Your task to perform on an android device: remove spam from my inbox in the gmail app Image 0: 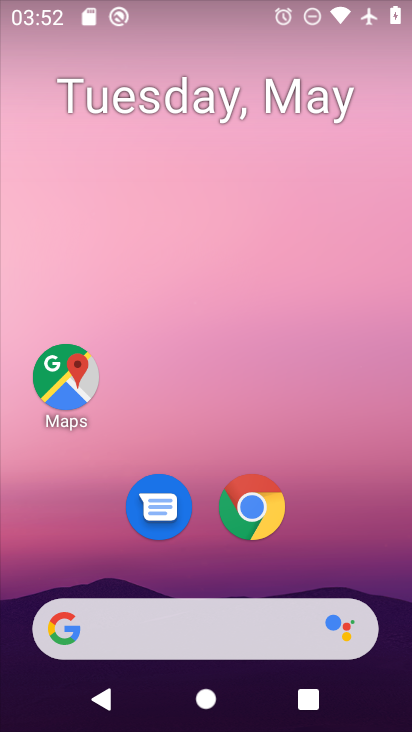
Step 0: drag from (202, 567) to (202, 223)
Your task to perform on an android device: remove spam from my inbox in the gmail app Image 1: 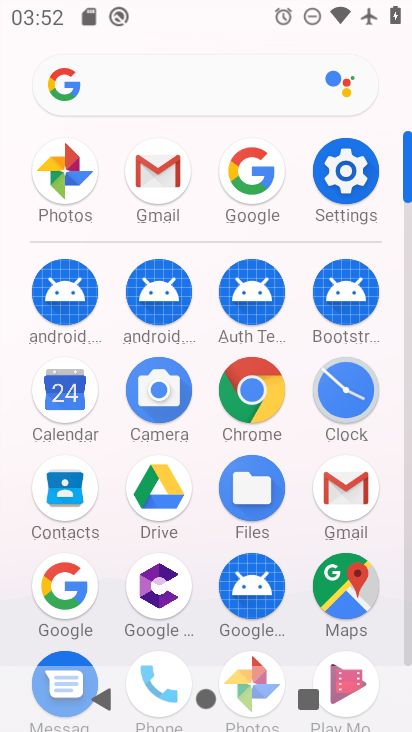
Step 1: click (161, 189)
Your task to perform on an android device: remove spam from my inbox in the gmail app Image 2: 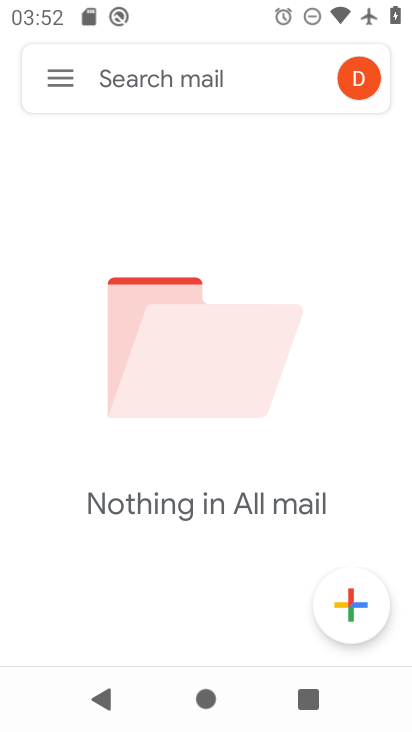
Step 2: click (46, 73)
Your task to perform on an android device: remove spam from my inbox in the gmail app Image 3: 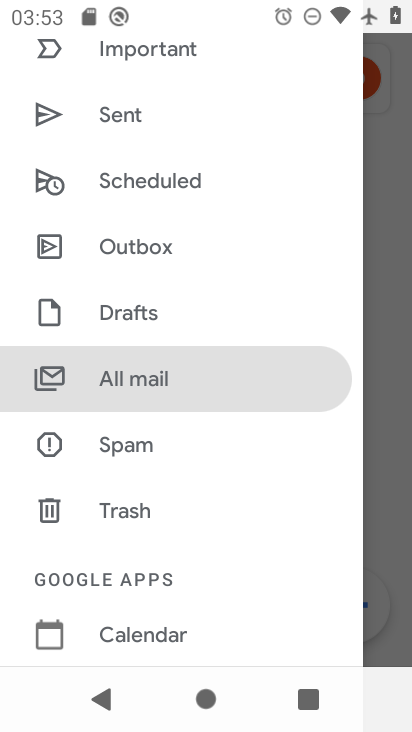
Step 3: click (145, 448)
Your task to perform on an android device: remove spam from my inbox in the gmail app Image 4: 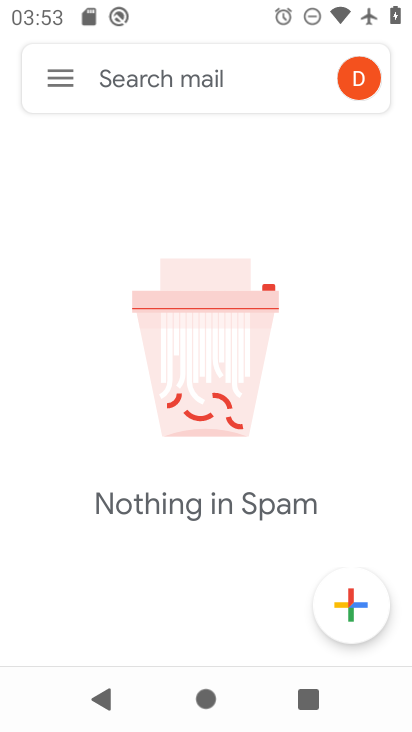
Step 4: task complete